Your task to perform on an android device: Open Chrome and go to settings Image 0: 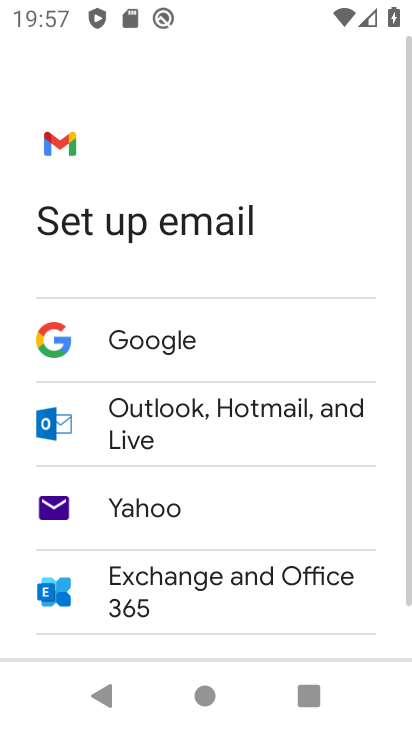
Step 0: press home button
Your task to perform on an android device: Open Chrome and go to settings Image 1: 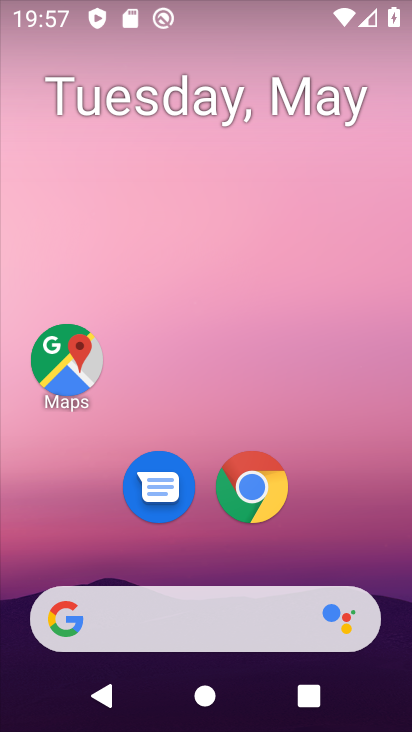
Step 1: click (252, 486)
Your task to perform on an android device: Open Chrome and go to settings Image 2: 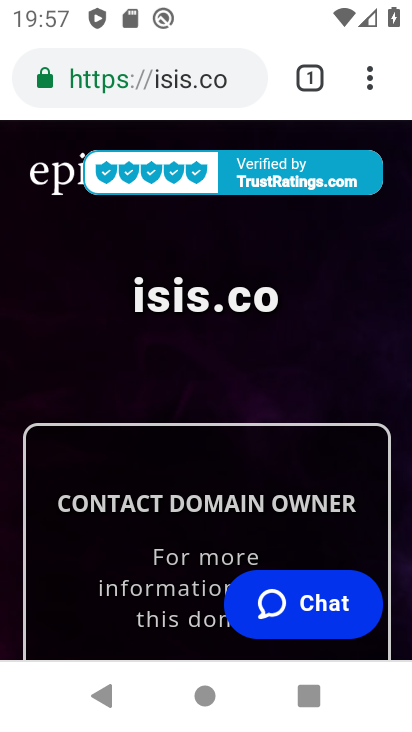
Step 2: click (374, 96)
Your task to perform on an android device: Open Chrome and go to settings Image 3: 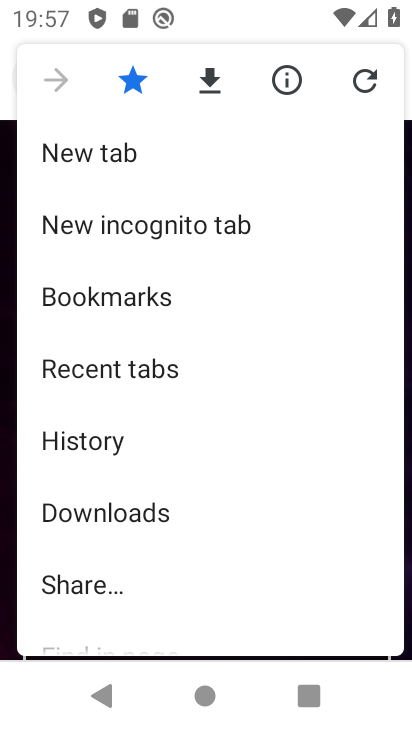
Step 3: drag from (147, 485) to (260, 126)
Your task to perform on an android device: Open Chrome and go to settings Image 4: 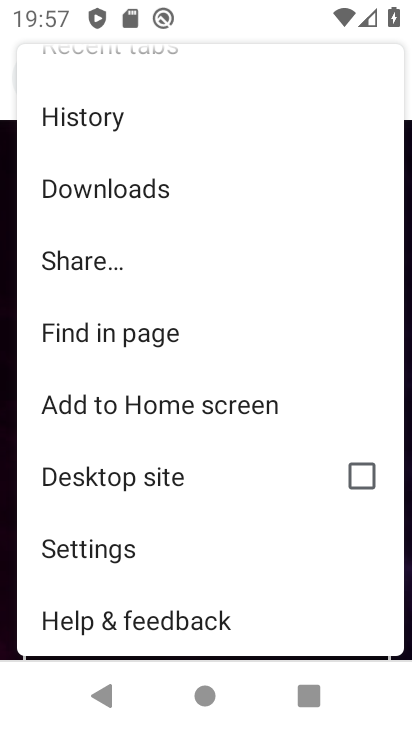
Step 4: click (193, 565)
Your task to perform on an android device: Open Chrome and go to settings Image 5: 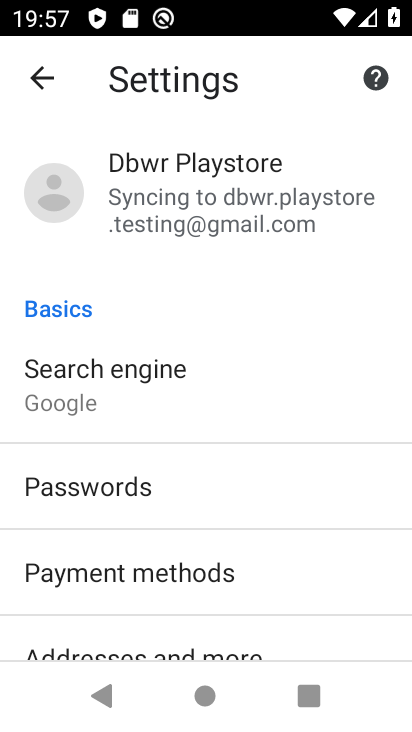
Step 5: task complete